Your task to perform on an android device: turn off sleep mode Image 0: 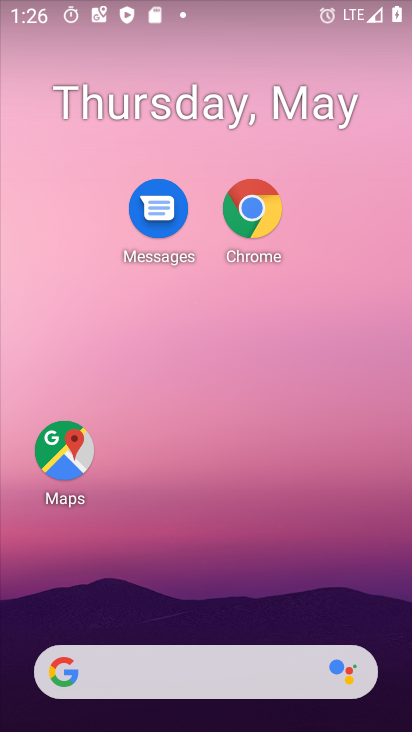
Step 0: drag from (208, 601) to (223, 0)
Your task to perform on an android device: turn off sleep mode Image 1: 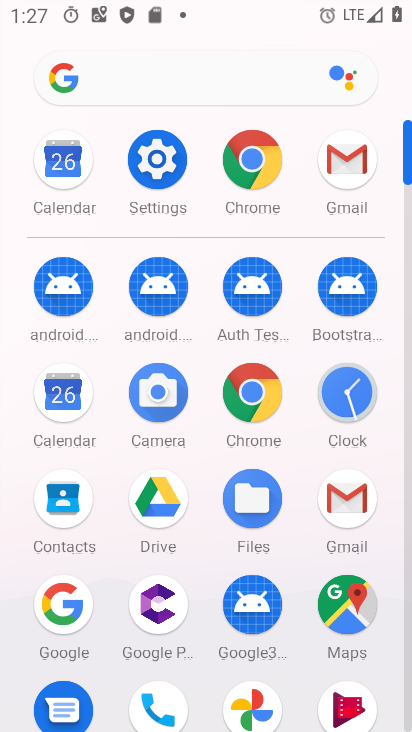
Step 1: task complete